Your task to perform on an android device: change the clock display to digital Image 0: 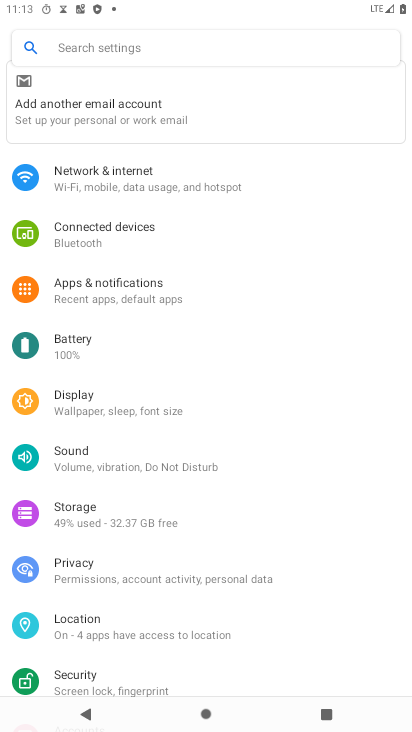
Step 0: press home button
Your task to perform on an android device: change the clock display to digital Image 1: 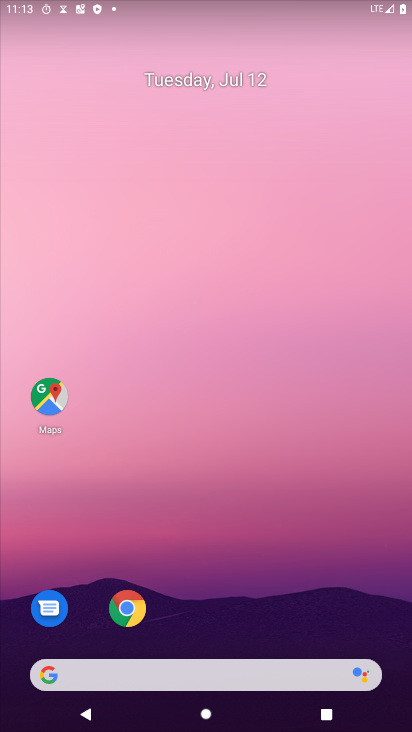
Step 1: drag from (263, 623) to (266, 81)
Your task to perform on an android device: change the clock display to digital Image 2: 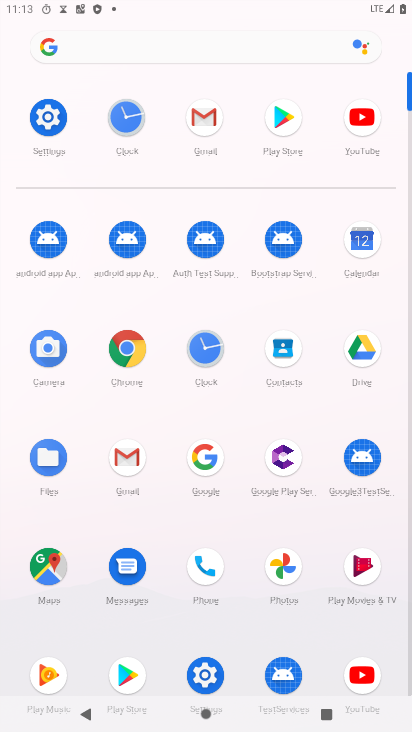
Step 2: click (203, 360)
Your task to perform on an android device: change the clock display to digital Image 3: 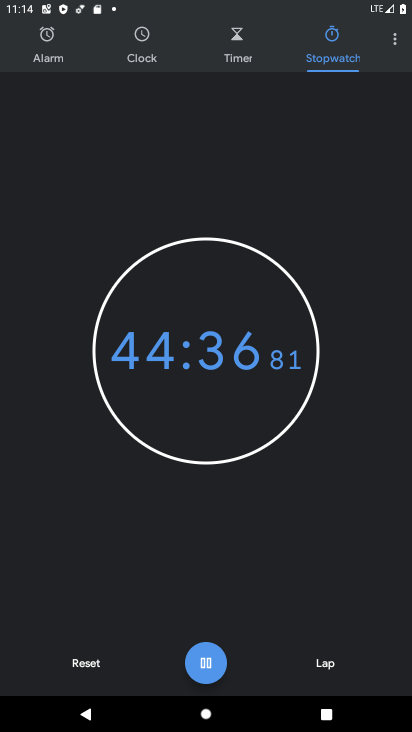
Step 3: click (394, 44)
Your task to perform on an android device: change the clock display to digital Image 4: 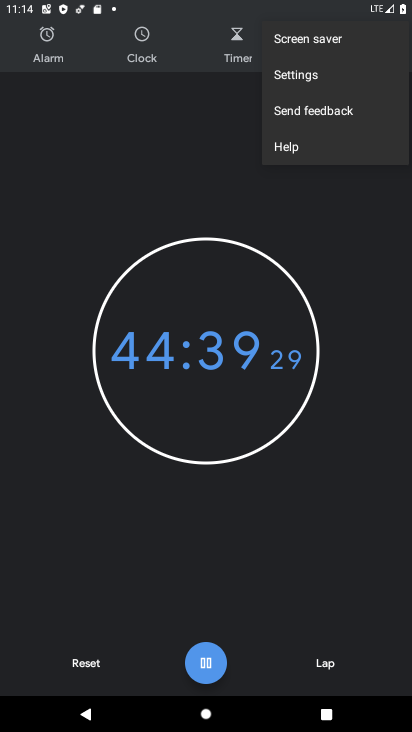
Step 4: click (288, 79)
Your task to perform on an android device: change the clock display to digital Image 5: 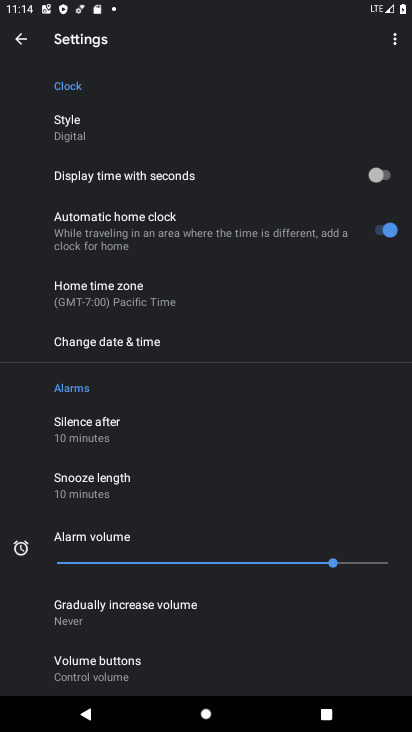
Step 5: click (94, 124)
Your task to perform on an android device: change the clock display to digital Image 6: 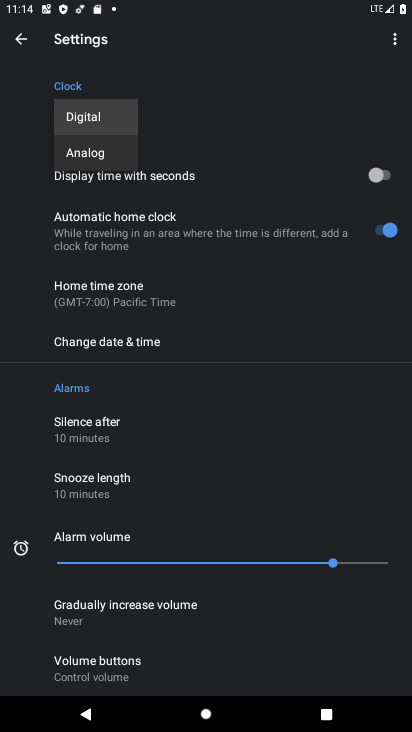
Step 6: click (96, 124)
Your task to perform on an android device: change the clock display to digital Image 7: 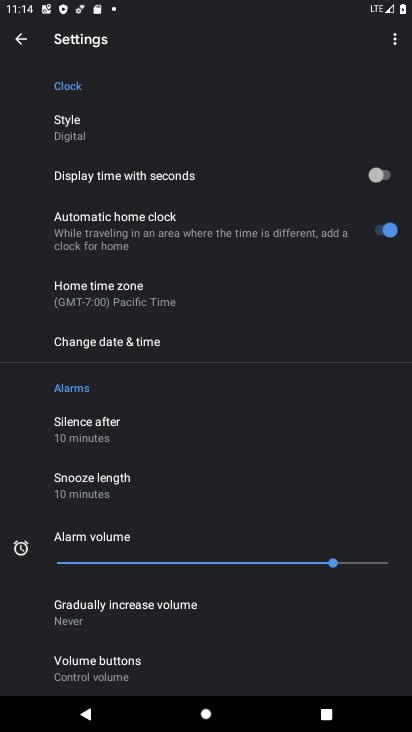
Step 7: task complete